Your task to perform on an android device: uninstall "Google News" Image 0: 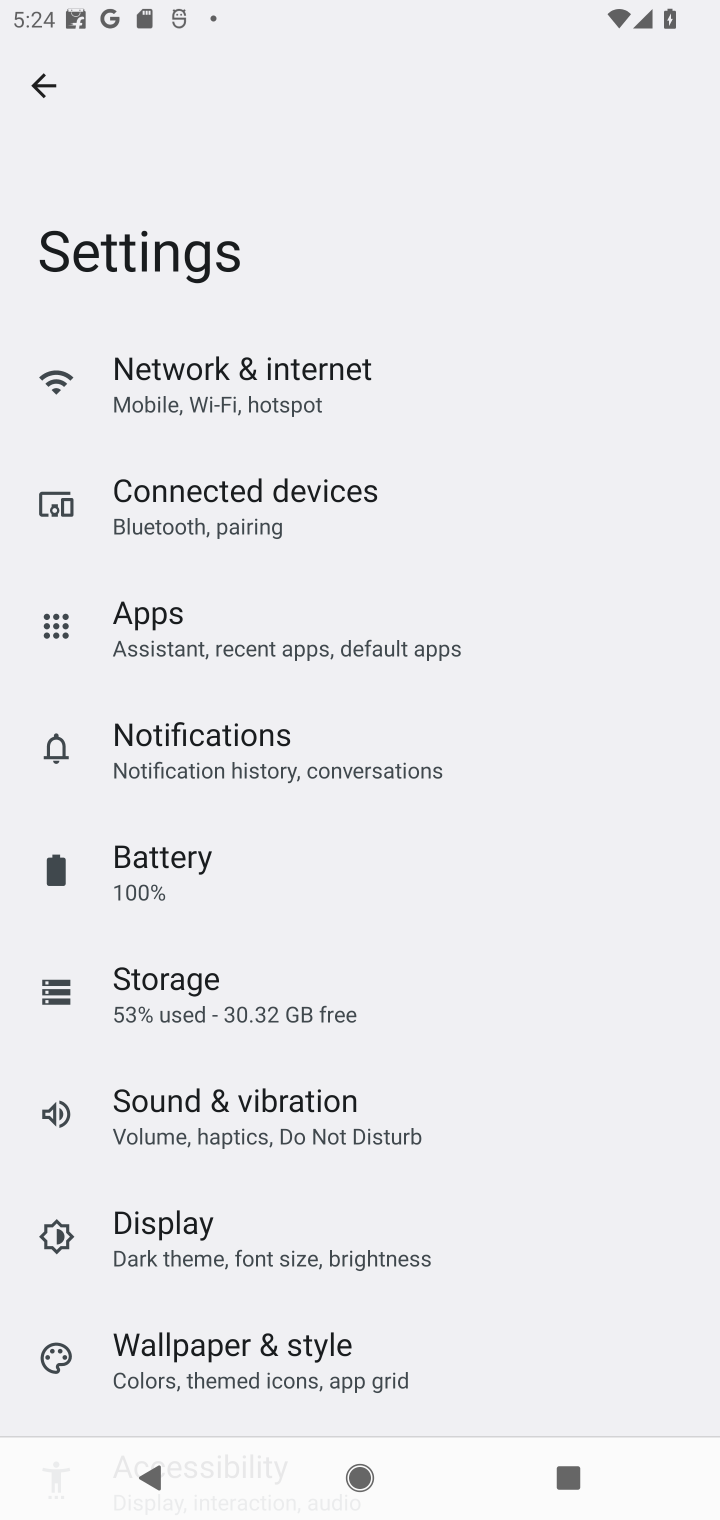
Step 0: press home button
Your task to perform on an android device: uninstall "Google News" Image 1: 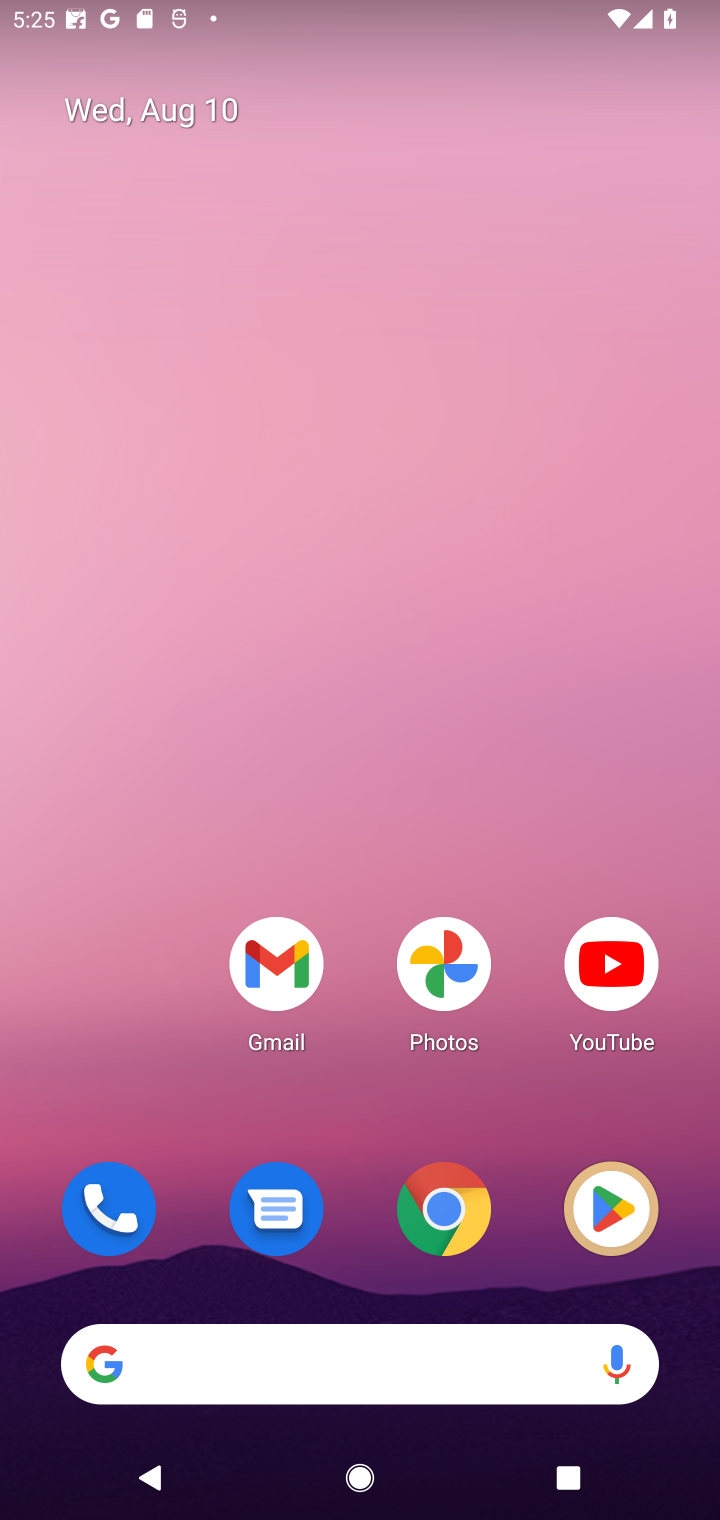
Step 1: drag from (369, 1254) to (313, 62)
Your task to perform on an android device: uninstall "Google News" Image 2: 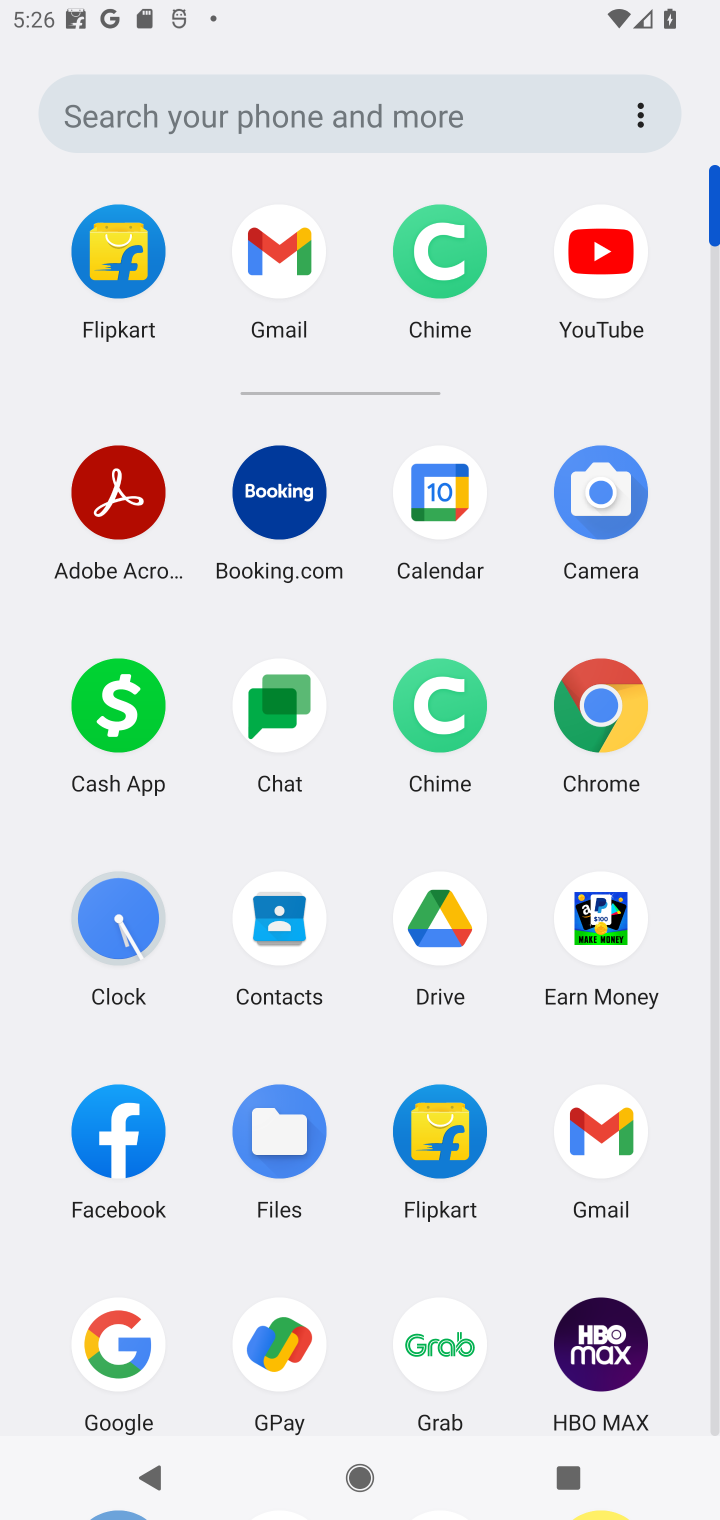
Step 2: click (206, 138)
Your task to perform on an android device: uninstall "Google News" Image 3: 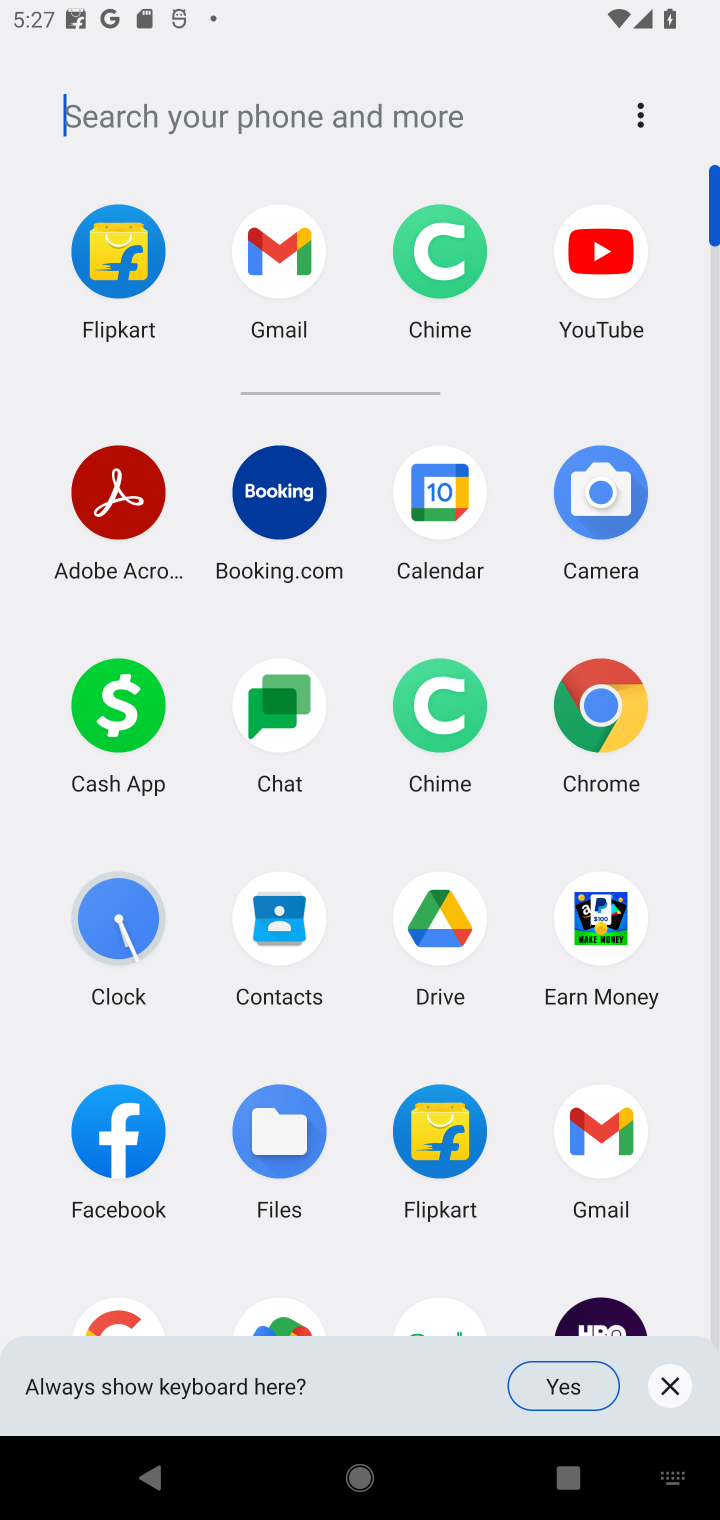
Step 3: type "google news"
Your task to perform on an android device: uninstall "Google News" Image 4: 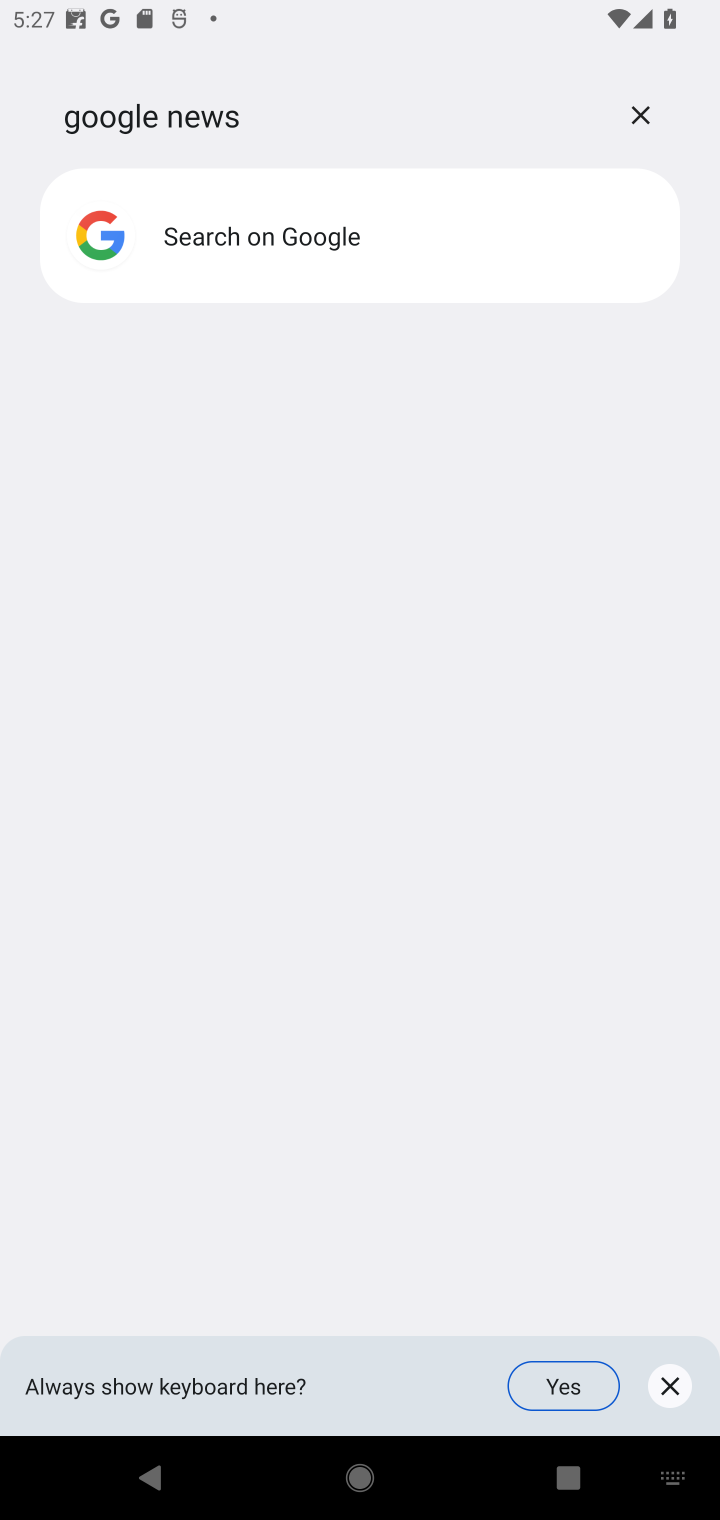
Step 4: click (184, 139)
Your task to perform on an android device: uninstall "Google News" Image 5: 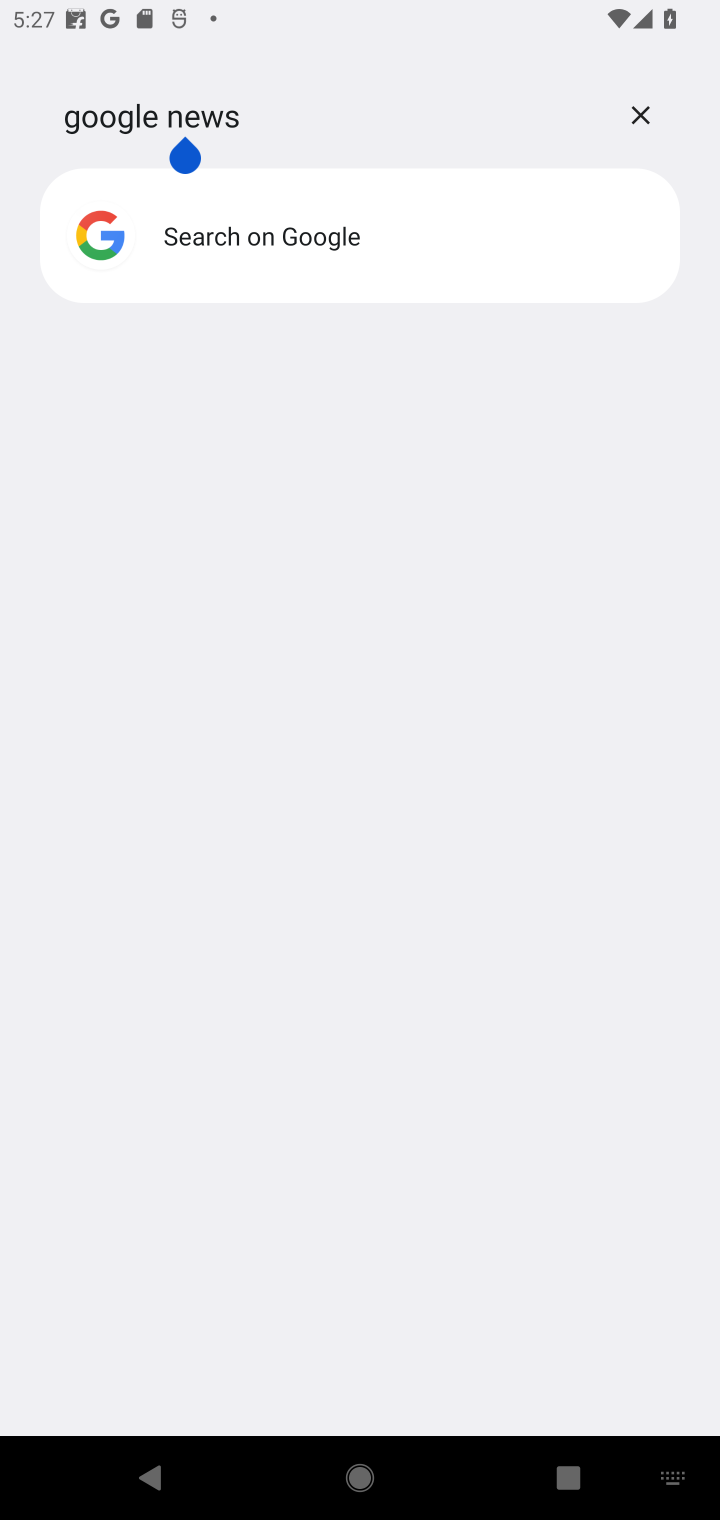
Step 5: task complete